Your task to perform on an android device: turn off airplane mode Image 0: 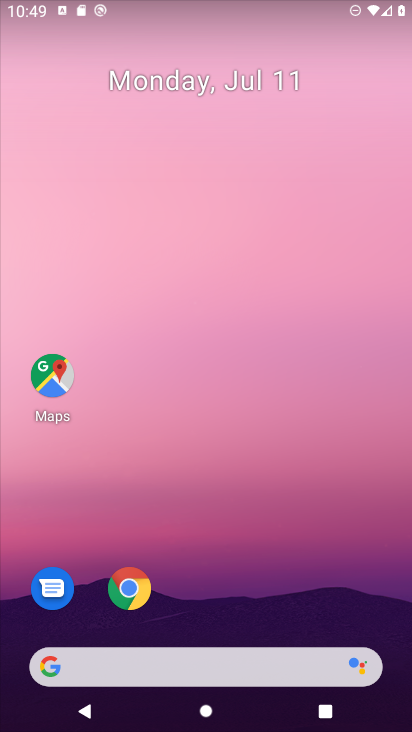
Step 0: drag from (400, 648) to (202, 69)
Your task to perform on an android device: turn off airplane mode Image 1: 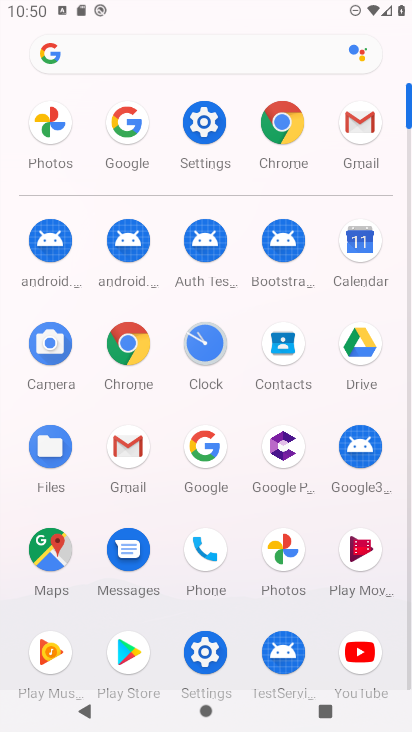
Step 1: task complete